Your task to perform on an android device: see tabs open on other devices in the chrome app Image 0: 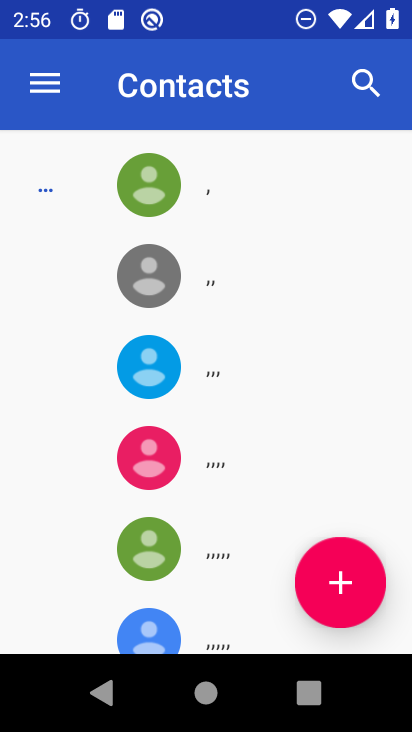
Step 0: press home button
Your task to perform on an android device: see tabs open on other devices in the chrome app Image 1: 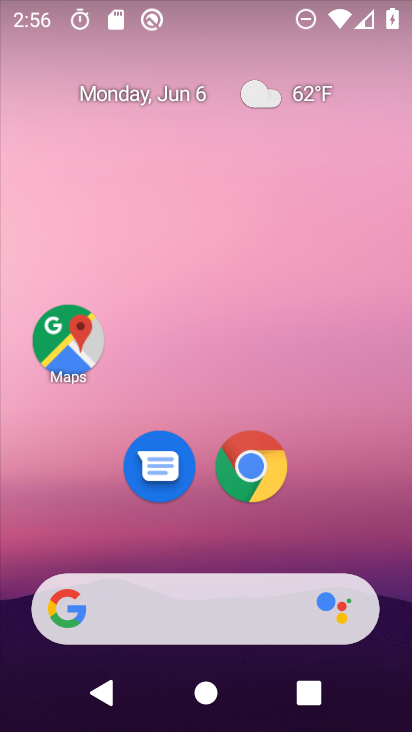
Step 1: drag from (235, 558) to (224, 226)
Your task to perform on an android device: see tabs open on other devices in the chrome app Image 2: 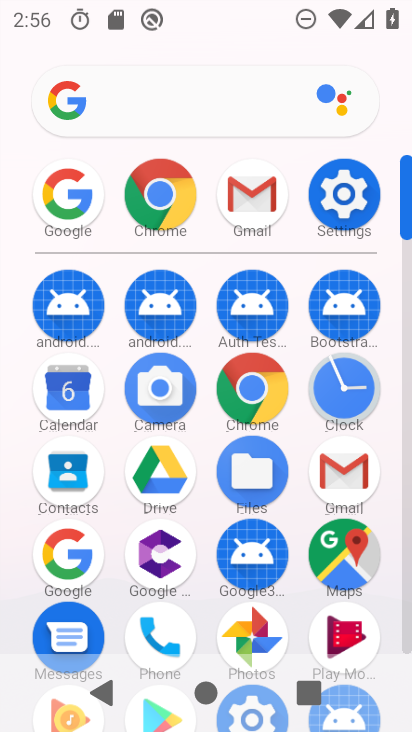
Step 2: click (155, 198)
Your task to perform on an android device: see tabs open on other devices in the chrome app Image 3: 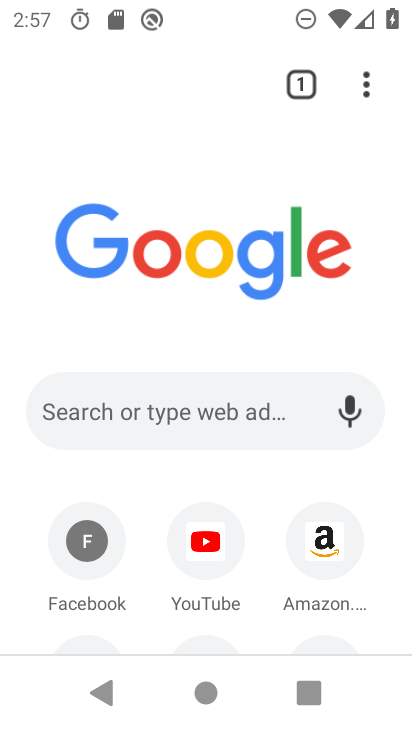
Step 3: click (371, 87)
Your task to perform on an android device: see tabs open on other devices in the chrome app Image 4: 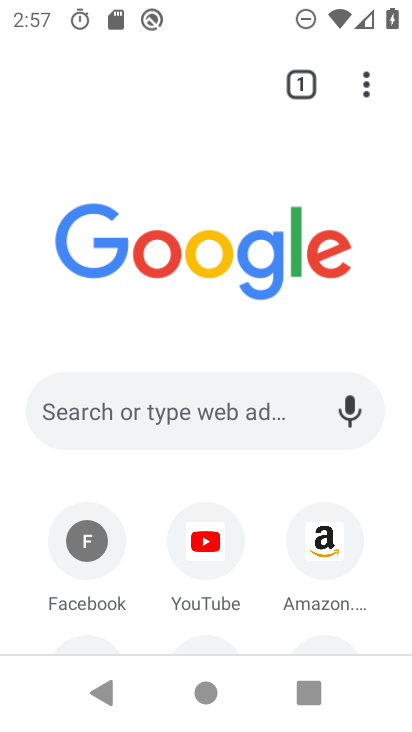
Step 4: click (371, 87)
Your task to perform on an android device: see tabs open on other devices in the chrome app Image 5: 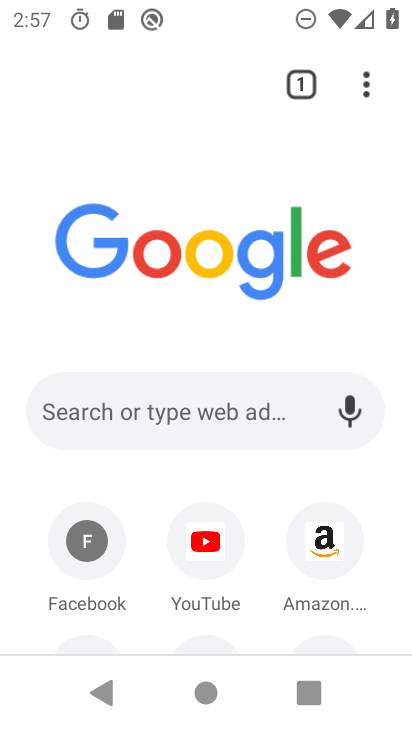
Step 5: click (368, 90)
Your task to perform on an android device: see tabs open on other devices in the chrome app Image 6: 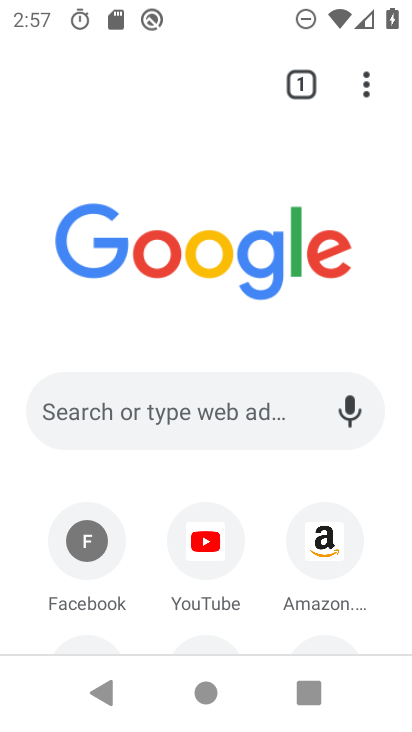
Step 6: click (361, 90)
Your task to perform on an android device: see tabs open on other devices in the chrome app Image 7: 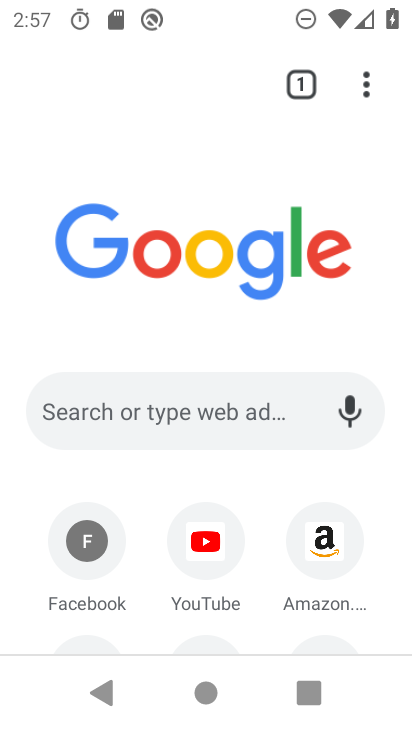
Step 7: click (367, 82)
Your task to perform on an android device: see tabs open on other devices in the chrome app Image 8: 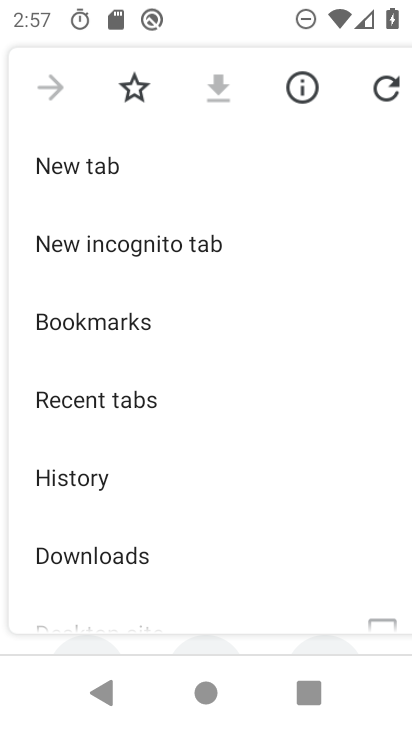
Step 8: click (102, 404)
Your task to perform on an android device: see tabs open on other devices in the chrome app Image 9: 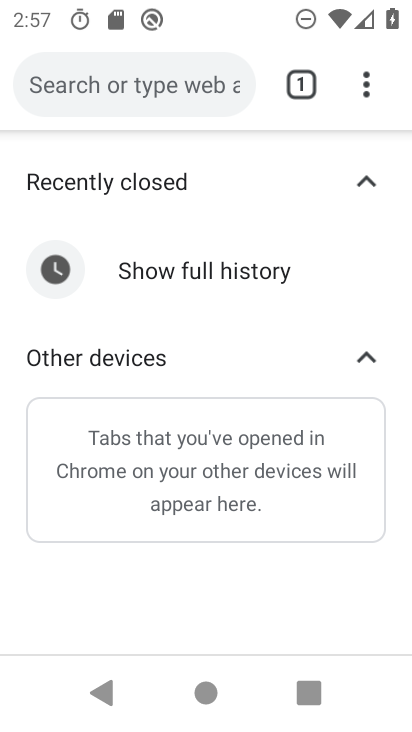
Step 9: task complete